Your task to perform on an android device: Open internet settings Image 0: 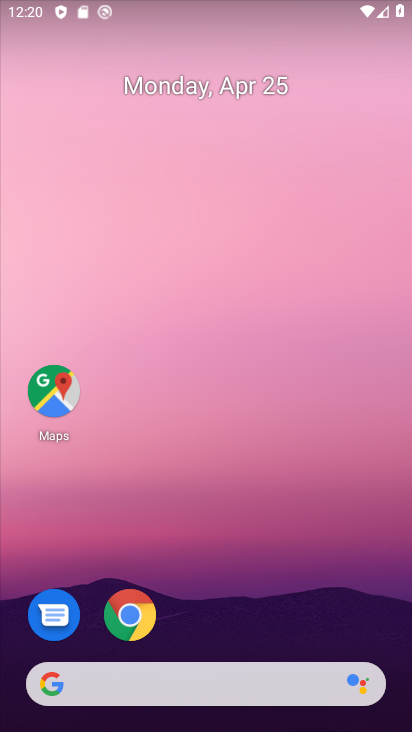
Step 0: drag from (209, 645) to (162, 7)
Your task to perform on an android device: Open internet settings Image 1: 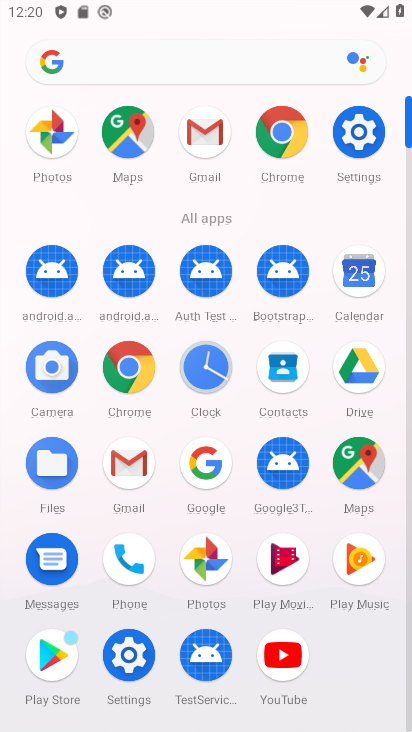
Step 1: click (354, 142)
Your task to perform on an android device: Open internet settings Image 2: 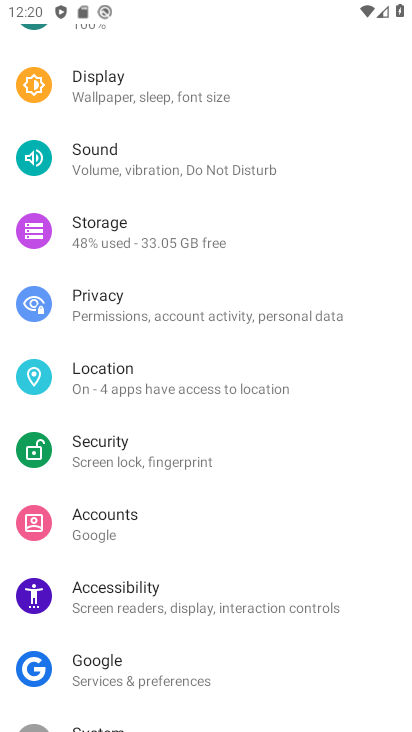
Step 2: drag from (292, 155) to (276, 598)
Your task to perform on an android device: Open internet settings Image 3: 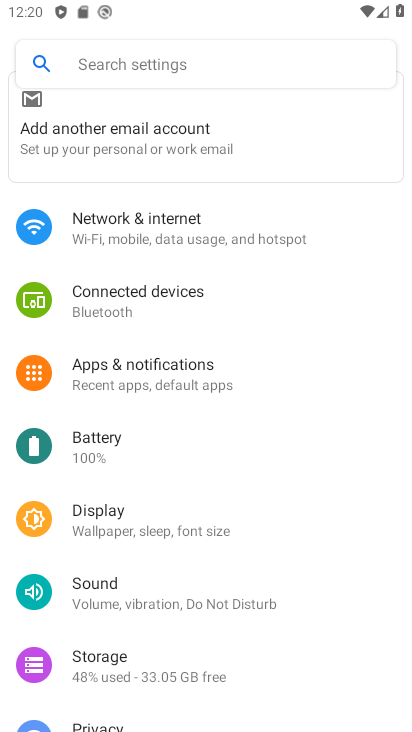
Step 3: click (151, 217)
Your task to perform on an android device: Open internet settings Image 4: 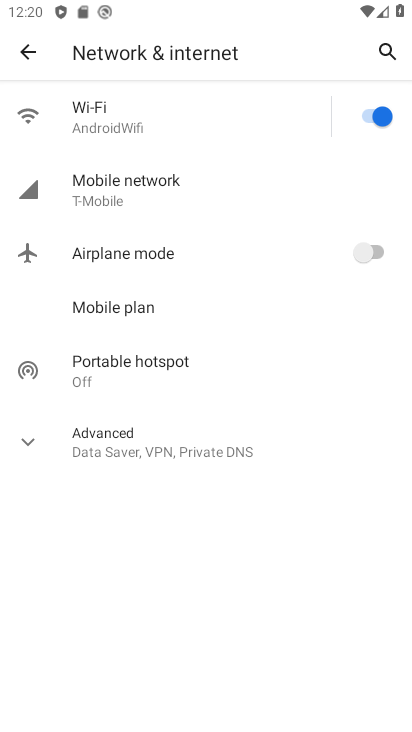
Step 4: click (125, 425)
Your task to perform on an android device: Open internet settings Image 5: 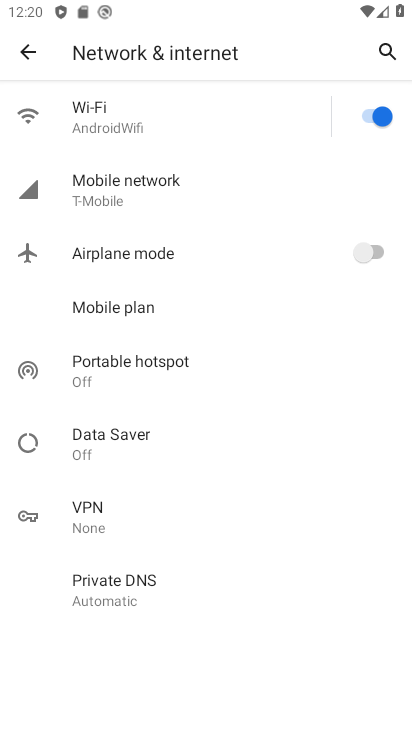
Step 5: drag from (125, 425) to (131, 105)
Your task to perform on an android device: Open internet settings Image 6: 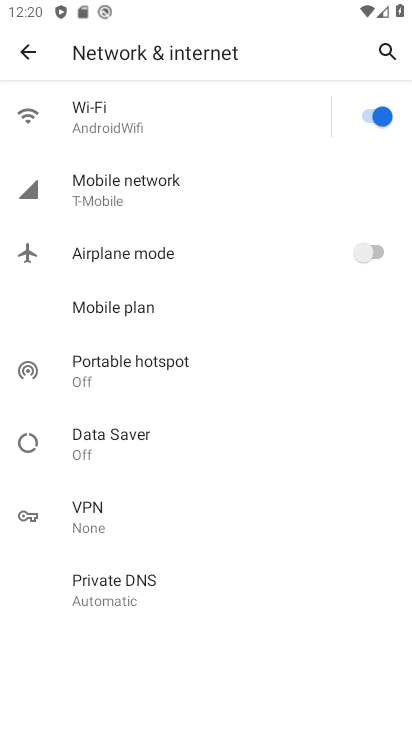
Step 6: click (135, 183)
Your task to perform on an android device: Open internet settings Image 7: 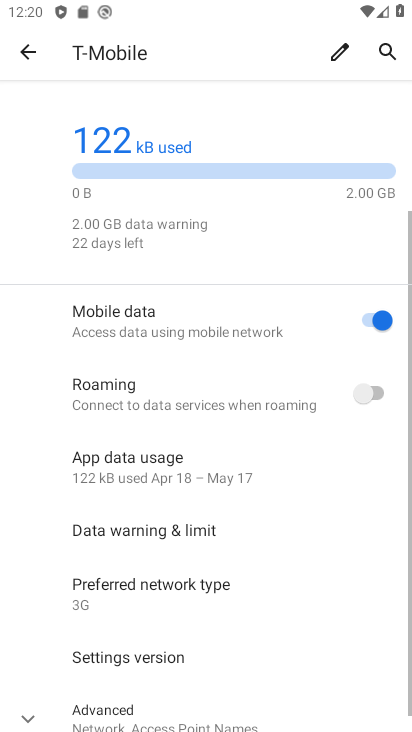
Step 7: task complete